Your task to perform on an android device: Do I have any events tomorrow? Image 0: 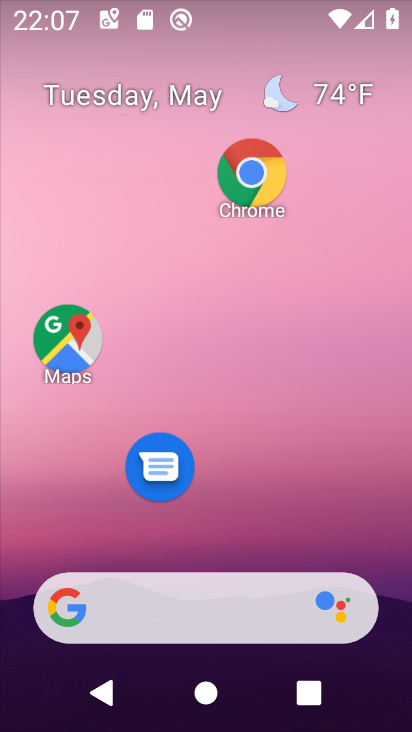
Step 0: drag from (343, 501) to (345, 138)
Your task to perform on an android device: Do I have any events tomorrow? Image 1: 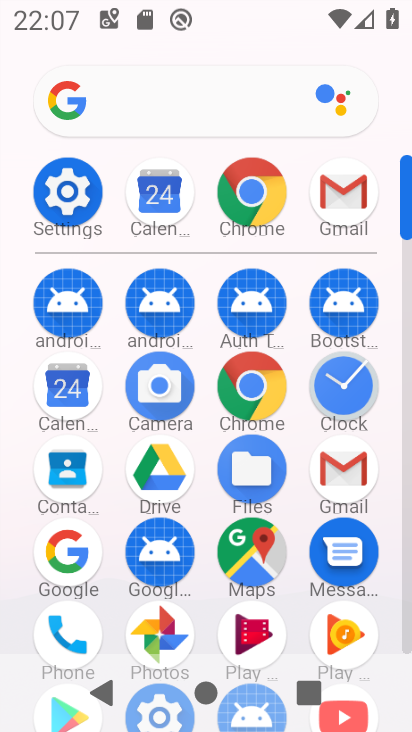
Step 1: click (68, 396)
Your task to perform on an android device: Do I have any events tomorrow? Image 2: 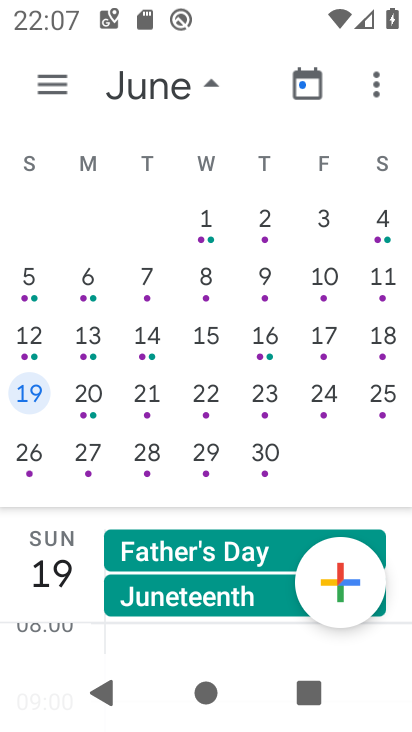
Step 2: drag from (81, 358) to (404, 368)
Your task to perform on an android device: Do I have any events tomorrow? Image 3: 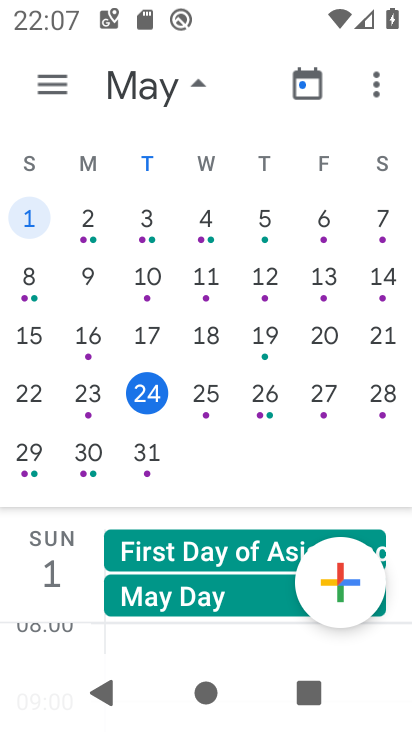
Step 3: click (204, 397)
Your task to perform on an android device: Do I have any events tomorrow? Image 4: 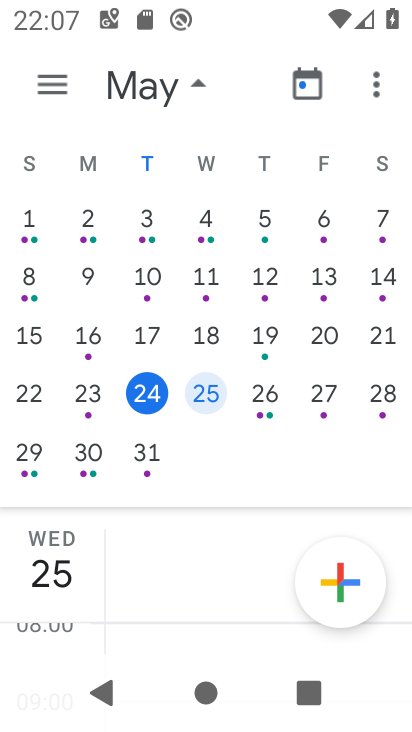
Step 4: task complete